Your task to perform on an android device: Open Chrome and go to settings Image 0: 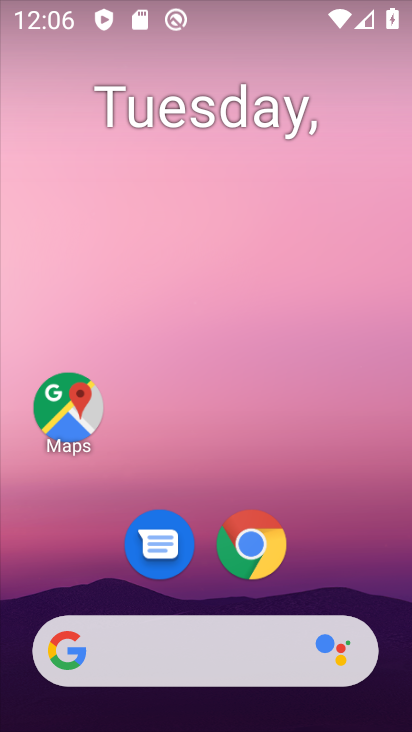
Step 0: task complete